Your task to perform on an android device: change the clock display to digital Image 0: 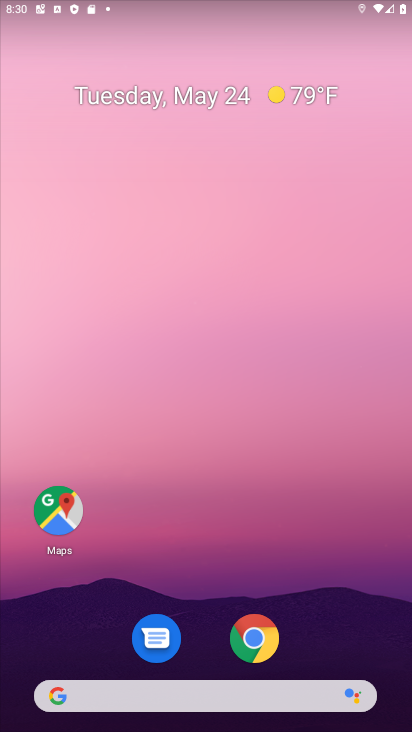
Step 0: drag from (220, 574) to (406, 13)
Your task to perform on an android device: change the clock display to digital Image 1: 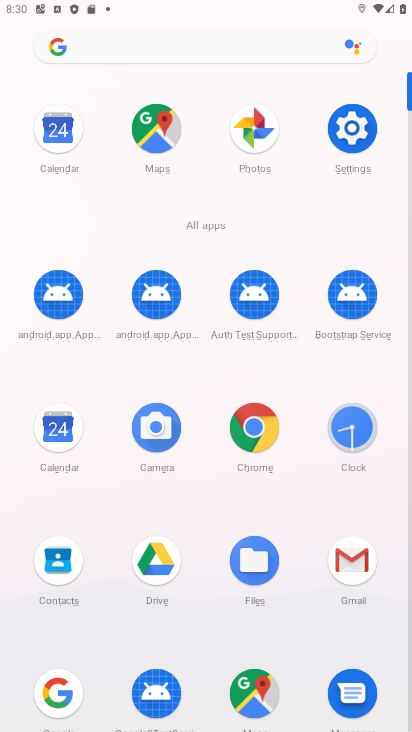
Step 1: click (359, 431)
Your task to perform on an android device: change the clock display to digital Image 2: 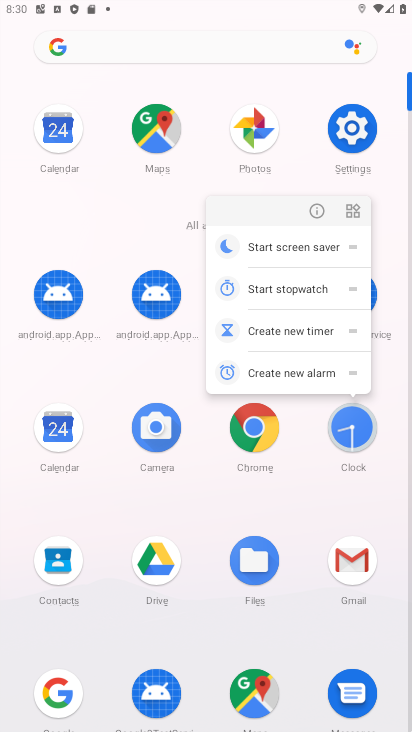
Step 2: click (323, 439)
Your task to perform on an android device: change the clock display to digital Image 3: 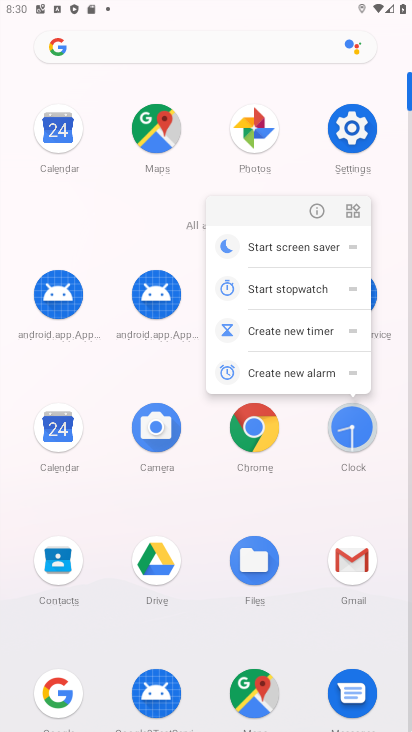
Step 3: click (323, 439)
Your task to perform on an android device: change the clock display to digital Image 4: 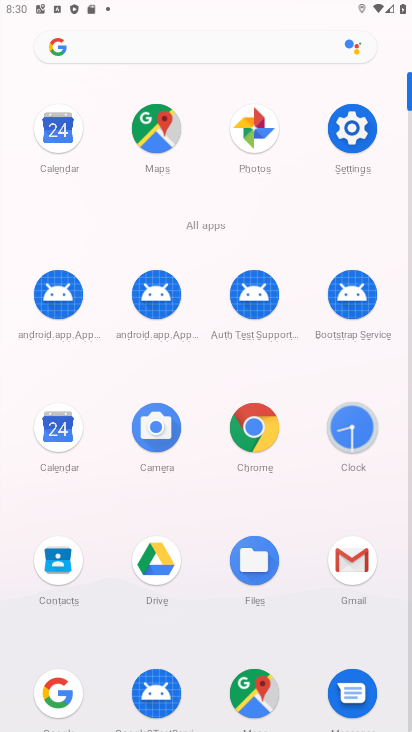
Step 4: click (323, 439)
Your task to perform on an android device: change the clock display to digital Image 5: 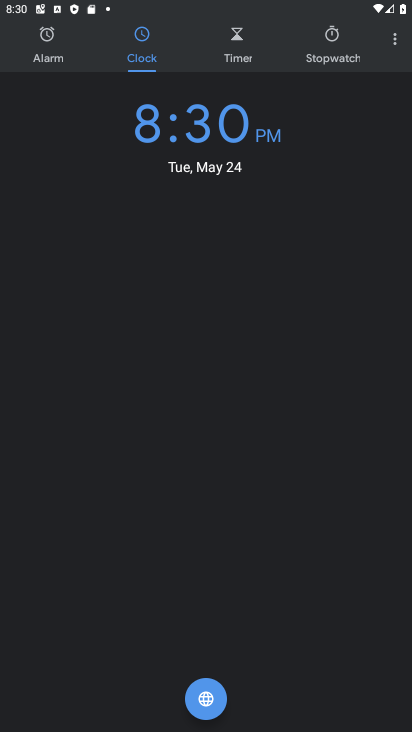
Step 5: click (386, 57)
Your task to perform on an android device: change the clock display to digital Image 6: 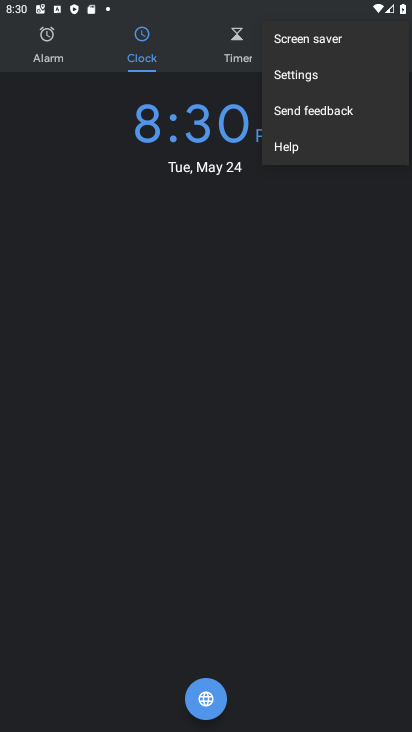
Step 6: click (338, 81)
Your task to perform on an android device: change the clock display to digital Image 7: 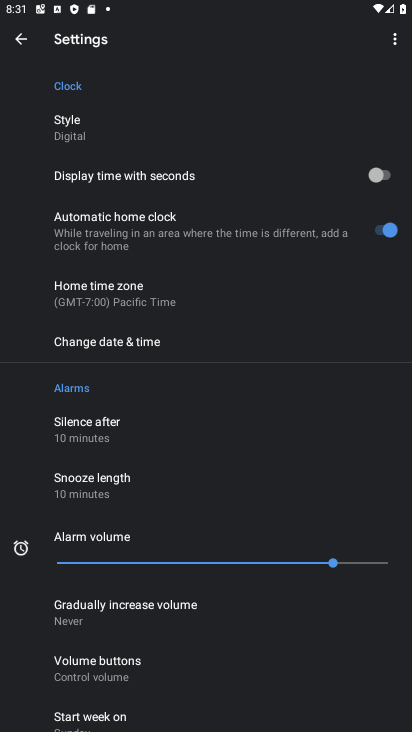
Step 7: task complete